Your task to perform on an android device: Open Yahoo.com Image 0: 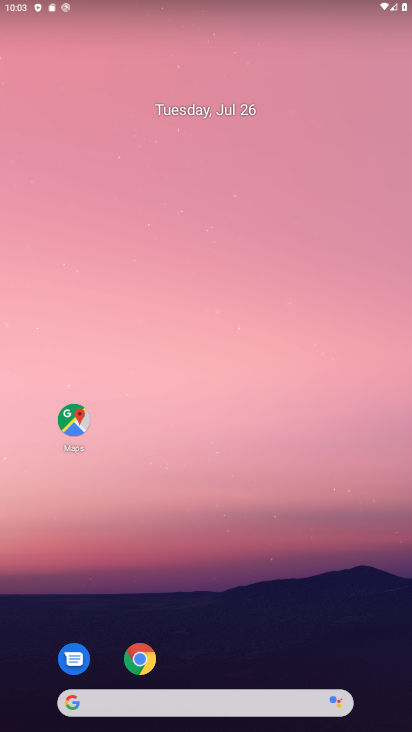
Step 0: press home button
Your task to perform on an android device: Open Yahoo.com Image 1: 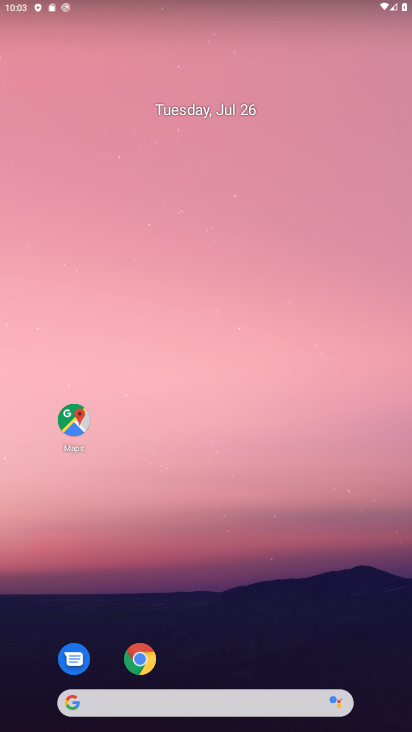
Step 1: click (139, 657)
Your task to perform on an android device: Open Yahoo.com Image 2: 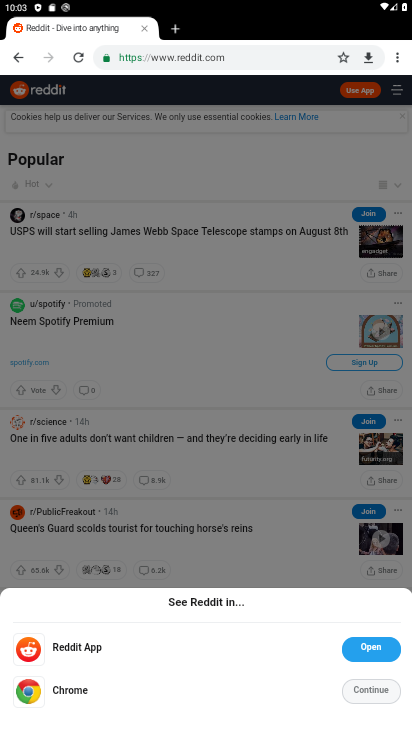
Step 2: click (151, 64)
Your task to perform on an android device: Open Yahoo.com Image 3: 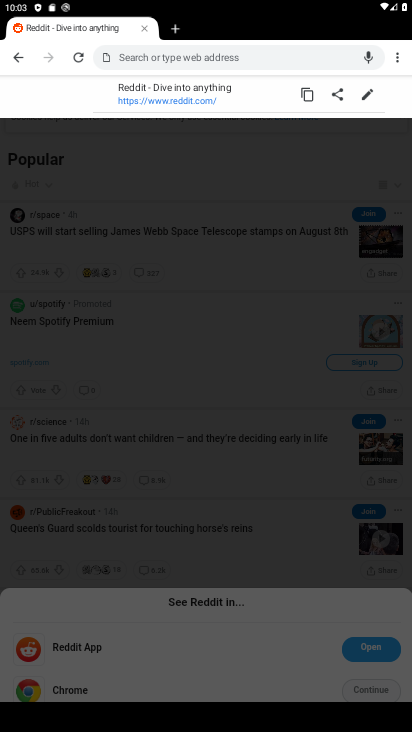
Step 3: type "Yahoo.com"
Your task to perform on an android device: Open Yahoo.com Image 4: 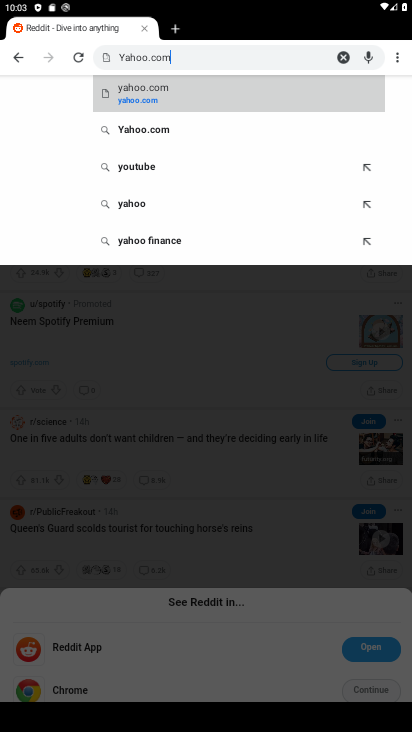
Step 4: type ""
Your task to perform on an android device: Open Yahoo.com Image 5: 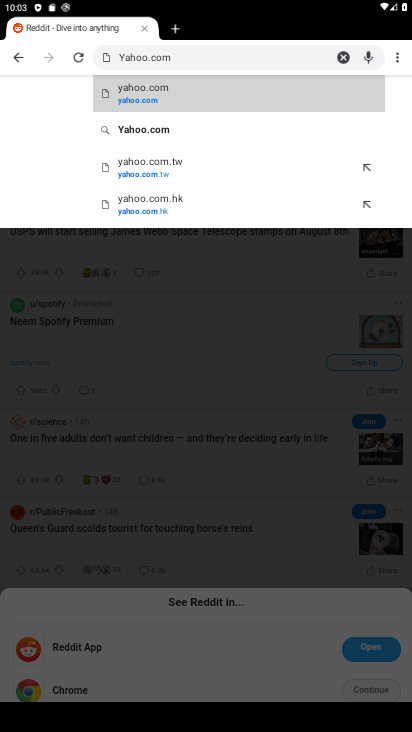
Step 5: click (137, 95)
Your task to perform on an android device: Open Yahoo.com Image 6: 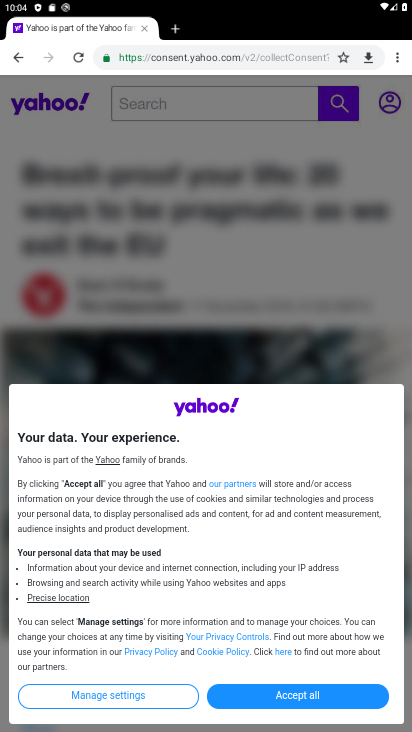
Step 6: task complete